Your task to perform on an android device: check out phone information Image 0: 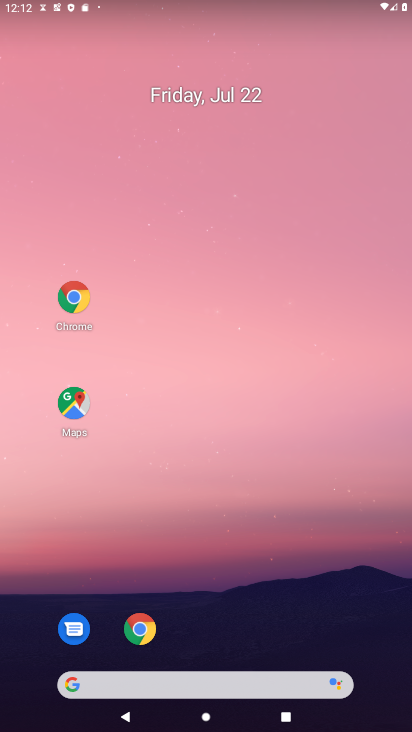
Step 0: drag from (240, 687) to (221, 63)
Your task to perform on an android device: check out phone information Image 1: 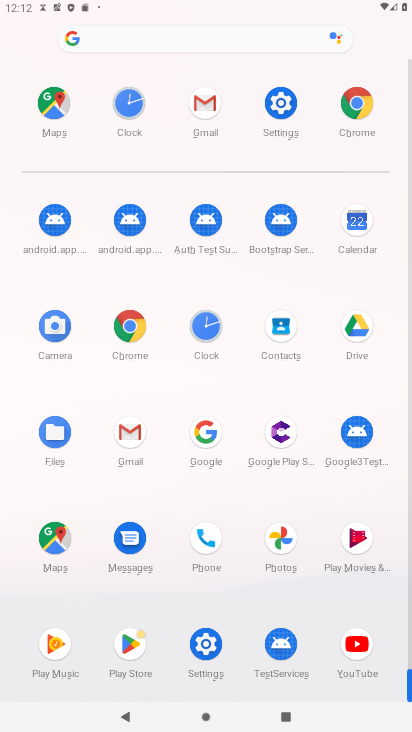
Step 1: task complete